Your task to perform on an android device: Open Google Maps Image 0: 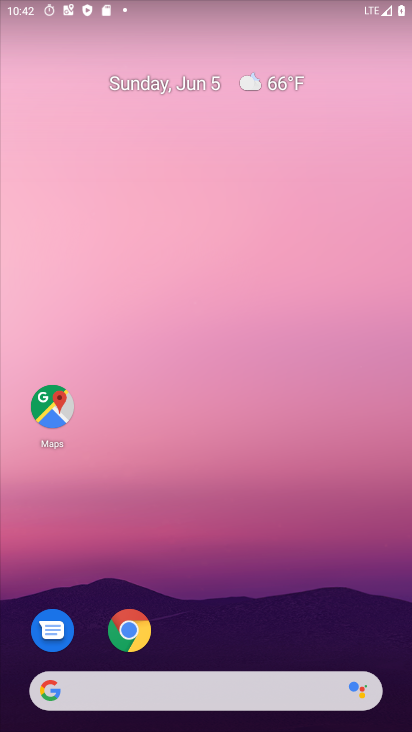
Step 0: drag from (219, 315) to (219, 45)
Your task to perform on an android device: Open Google Maps Image 1: 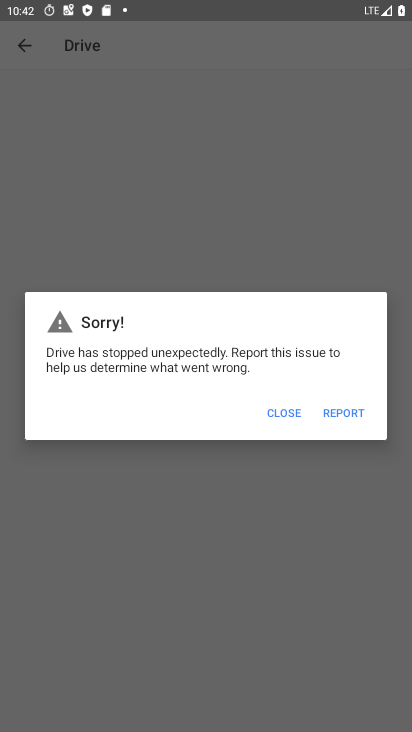
Step 1: press home button
Your task to perform on an android device: Open Google Maps Image 2: 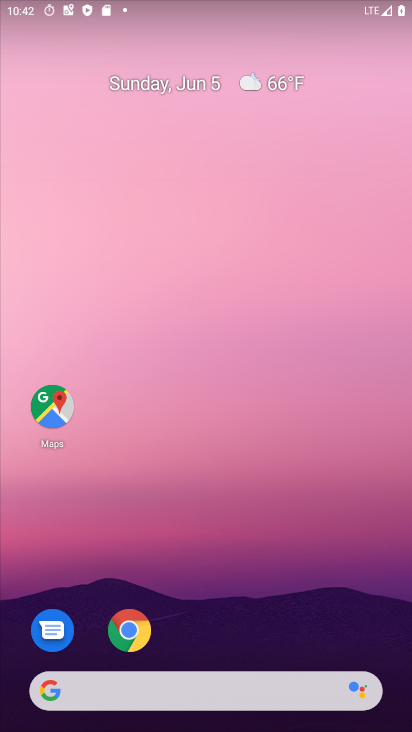
Step 2: drag from (205, 714) to (206, 1)
Your task to perform on an android device: Open Google Maps Image 3: 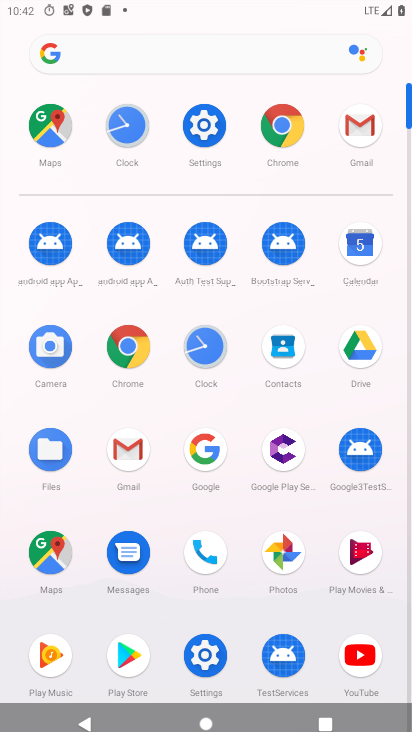
Step 3: click (42, 555)
Your task to perform on an android device: Open Google Maps Image 4: 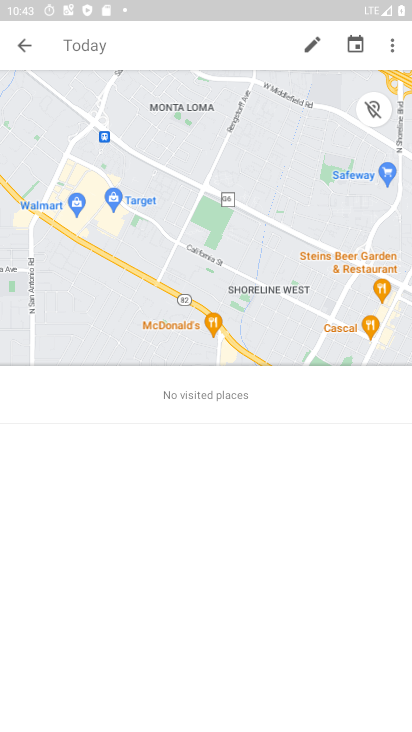
Step 4: task complete